Your task to perform on an android device: open sync settings in chrome Image 0: 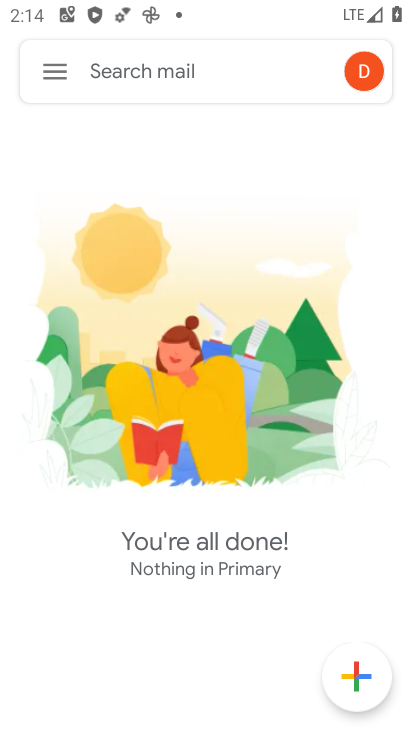
Step 0: press home button
Your task to perform on an android device: open sync settings in chrome Image 1: 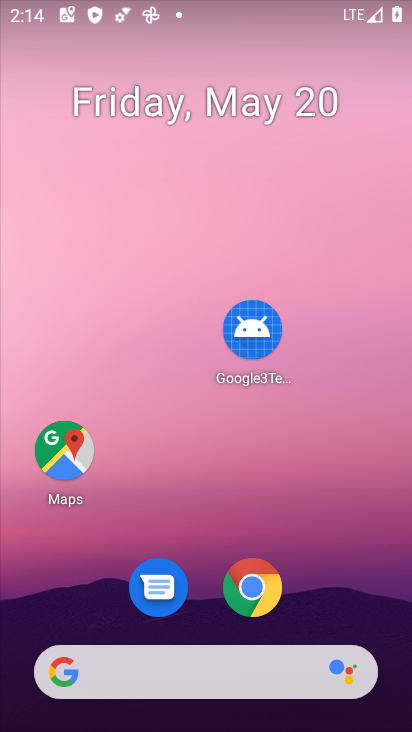
Step 1: click (245, 582)
Your task to perform on an android device: open sync settings in chrome Image 2: 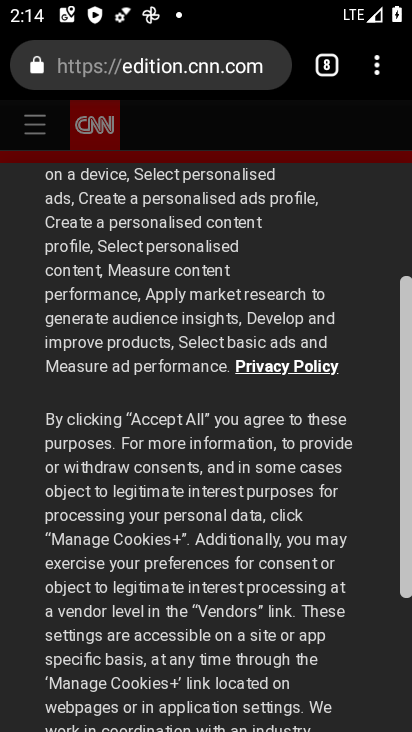
Step 2: click (382, 60)
Your task to perform on an android device: open sync settings in chrome Image 3: 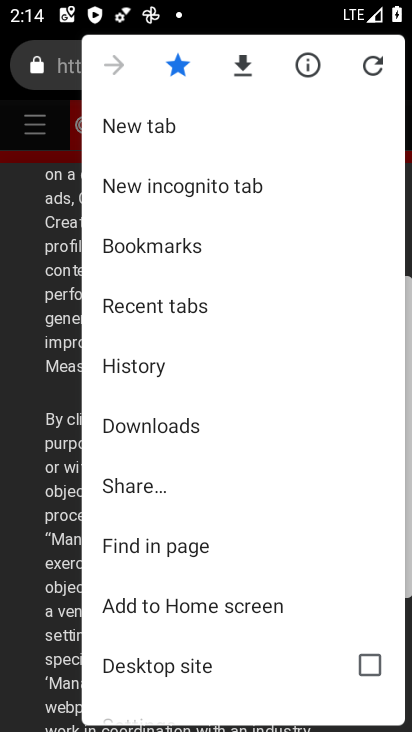
Step 3: drag from (249, 530) to (228, 199)
Your task to perform on an android device: open sync settings in chrome Image 4: 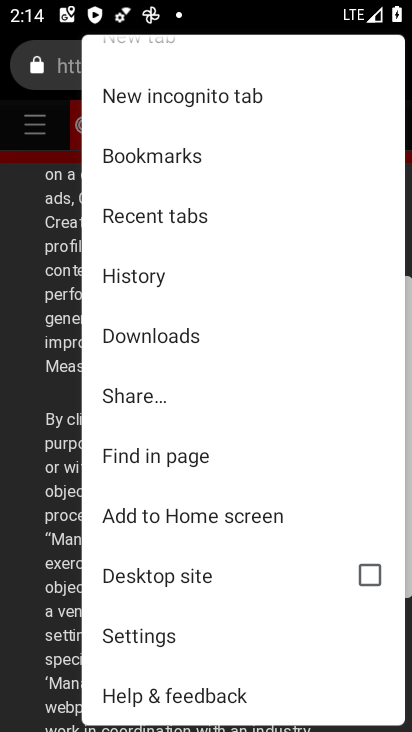
Step 4: click (143, 630)
Your task to perform on an android device: open sync settings in chrome Image 5: 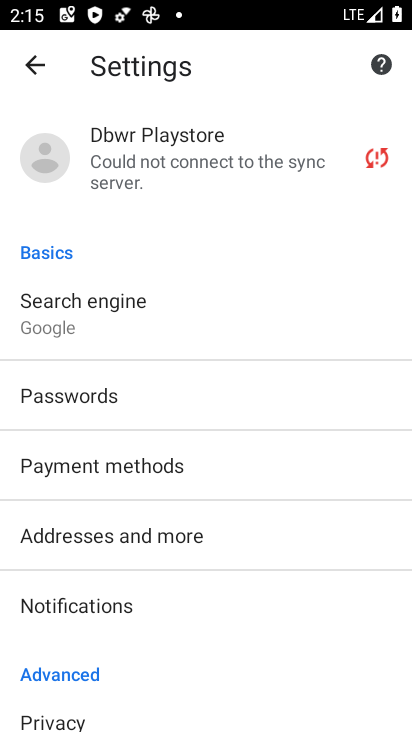
Step 5: click (133, 134)
Your task to perform on an android device: open sync settings in chrome Image 6: 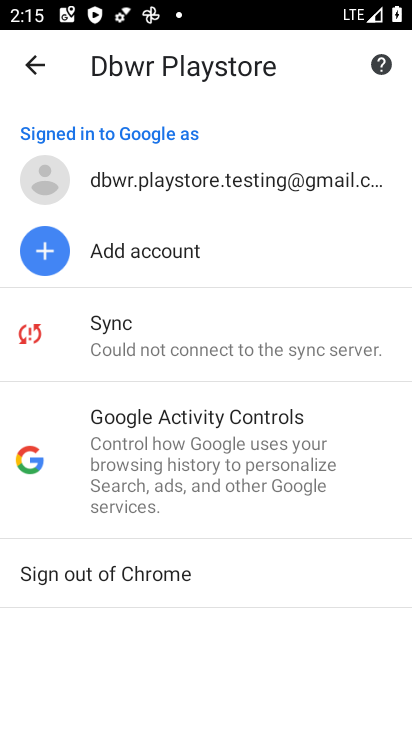
Step 6: click (113, 329)
Your task to perform on an android device: open sync settings in chrome Image 7: 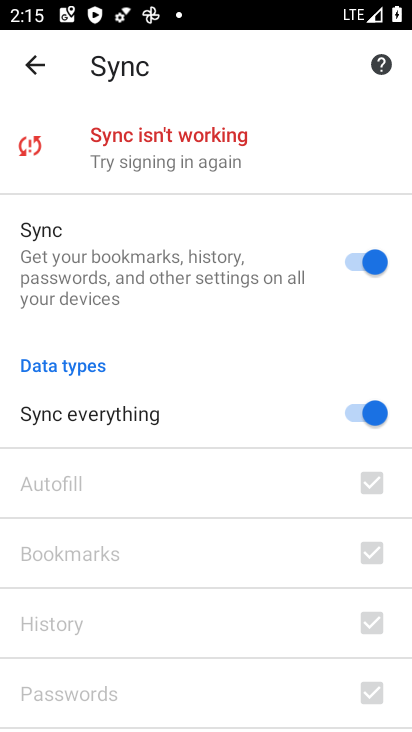
Step 7: task complete